Your task to perform on an android device: Search for seafood restaurants on Google Maps Image 0: 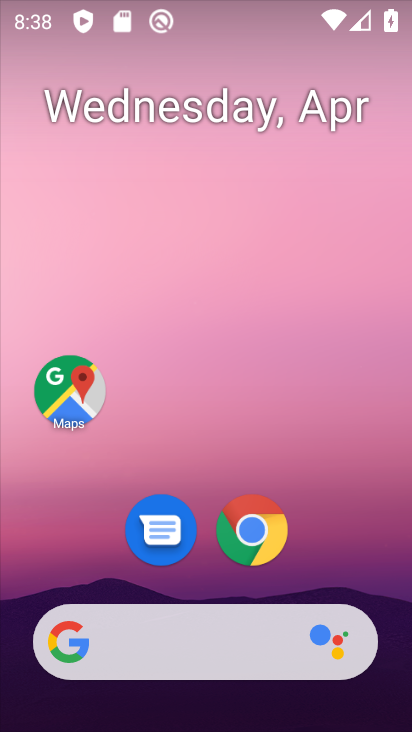
Step 0: click (73, 408)
Your task to perform on an android device: Search for seafood restaurants on Google Maps Image 1: 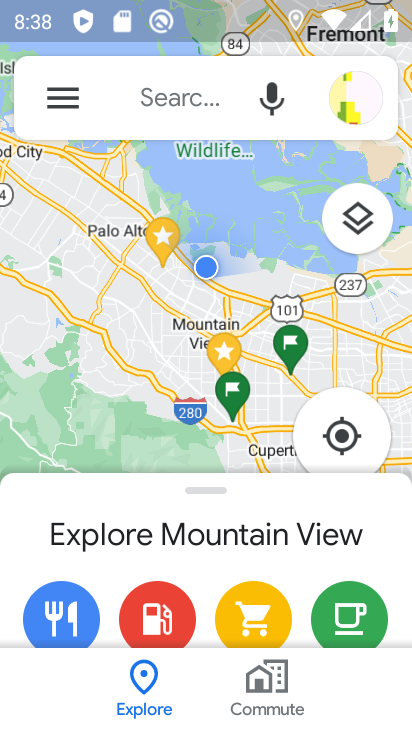
Step 1: click (205, 94)
Your task to perform on an android device: Search for seafood restaurants on Google Maps Image 2: 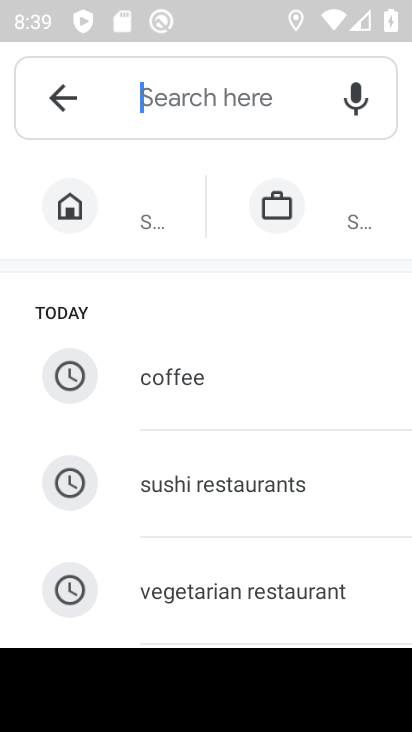
Step 2: type "seafood restauranta"
Your task to perform on an android device: Search for seafood restaurants on Google Maps Image 3: 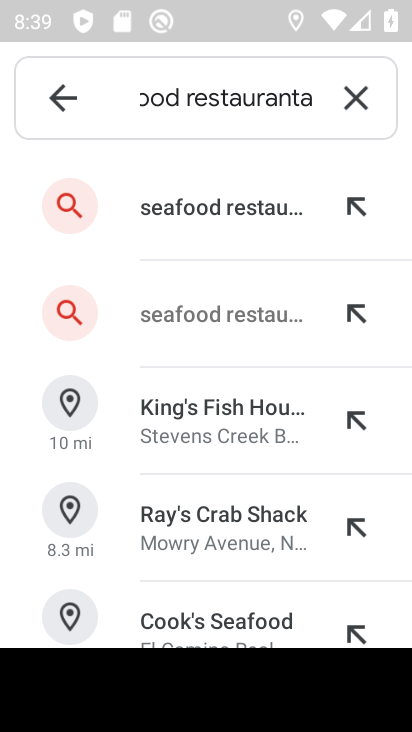
Step 3: click (181, 244)
Your task to perform on an android device: Search for seafood restaurants on Google Maps Image 4: 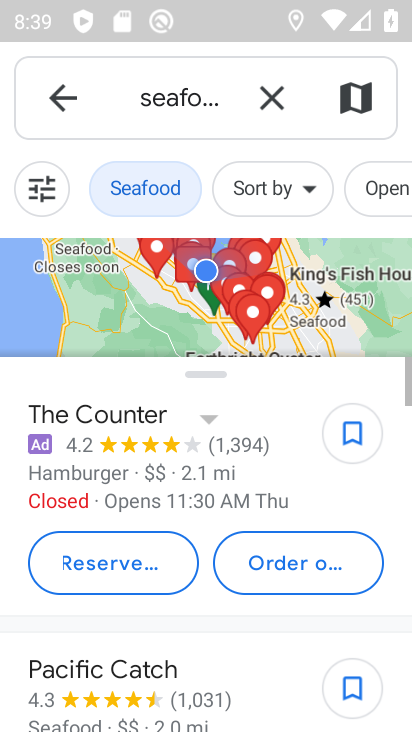
Step 4: task complete